Your task to perform on an android device: toggle location history Image 0: 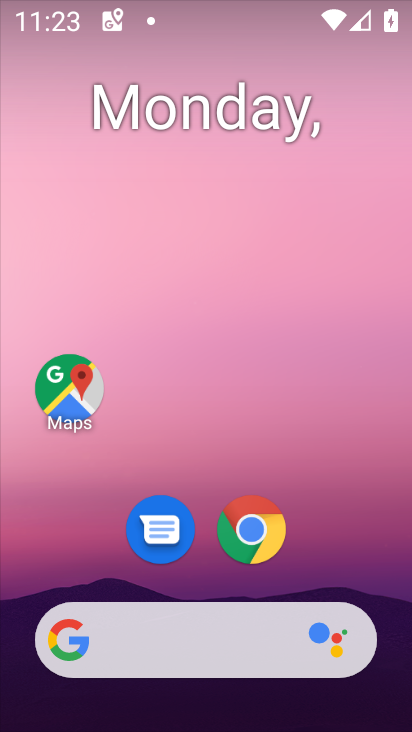
Step 0: press home button
Your task to perform on an android device: toggle location history Image 1: 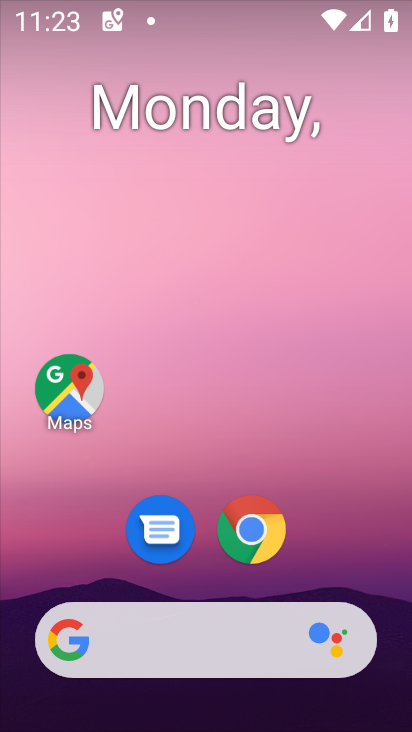
Step 1: drag from (241, 678) to (206, 6)
Your task to perform on an android device: toggle location history Image 2: 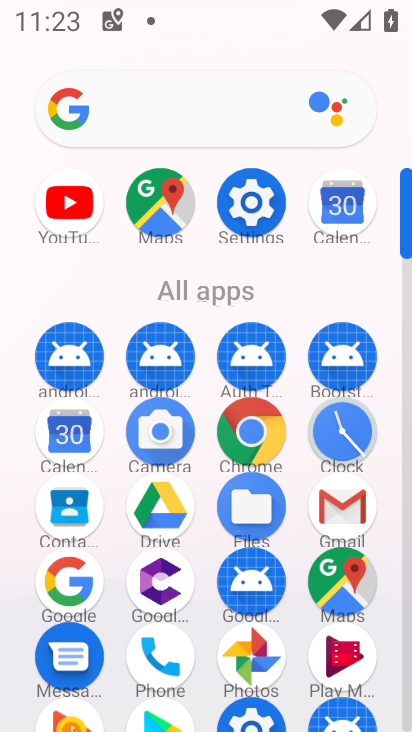
Step 2: click (244, 214)
Your task to perform on an android device: toggle location history Image 3: 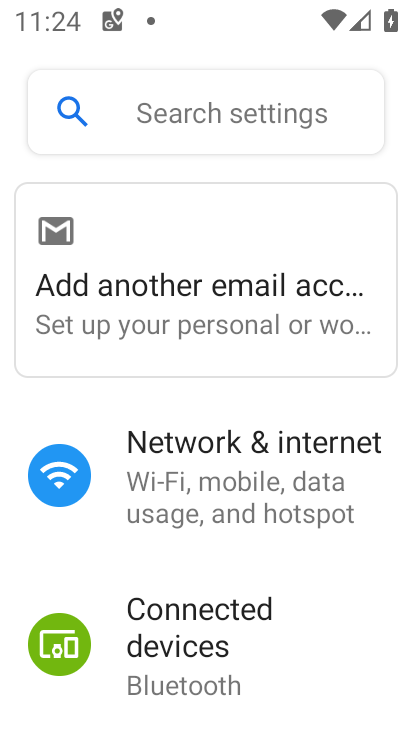
Step 3: click (212, 129)
Your task to perform on an android device: toggle location history Image 4: 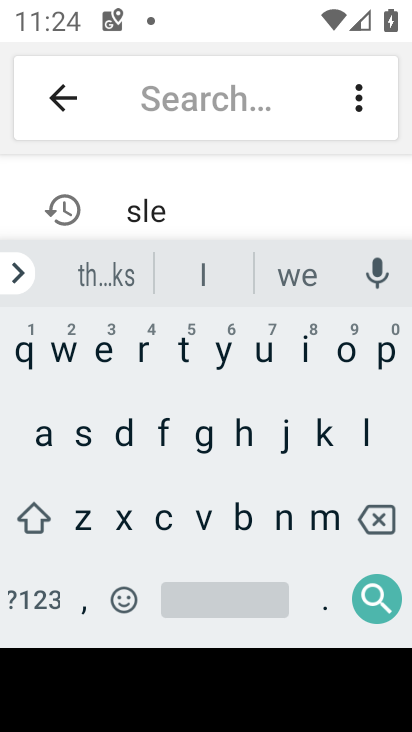
Step 4: click (373, 426)
Your task to perform on an android device: toggle location history Image 5: 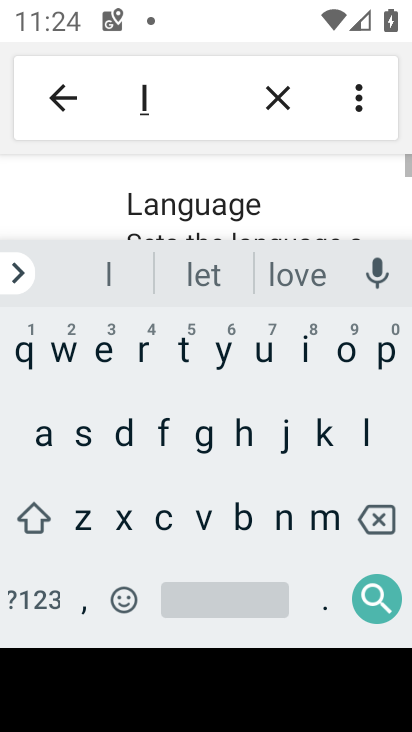
Step 5: click (346, 351)
Your task to perform on an android device: toggle location history Image 6: 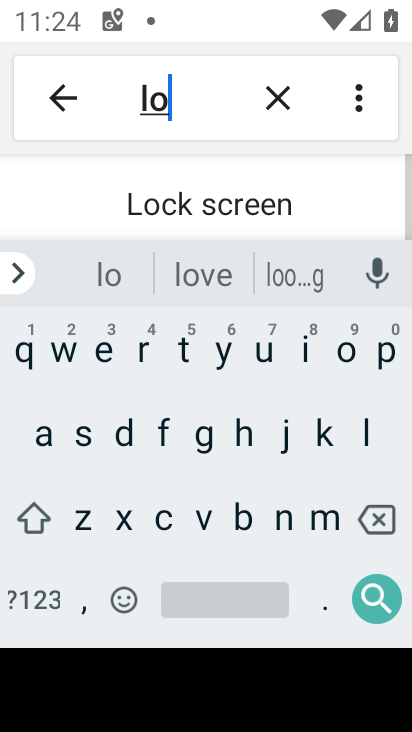
Step 6: press back button
Your task to perform on an android device: toggle location history Image 7: 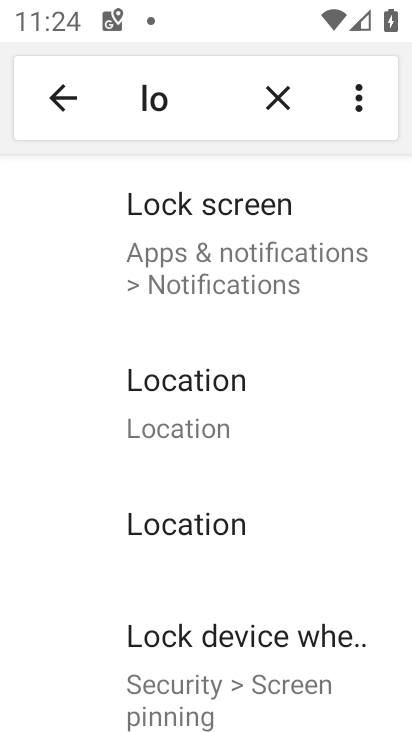
Step 7: click (230, 396)
Your task to perform on an android device: toggle location history Image 8: 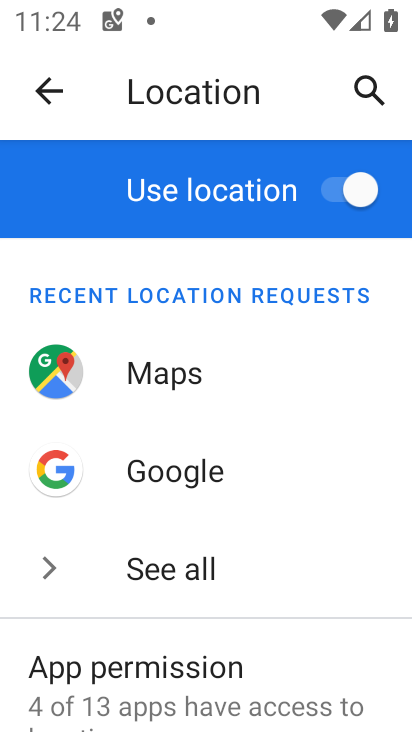
Step 8: drag from (143, 629) to (182, 320)
Your task to perform on an android device: toggle location history Image 9: 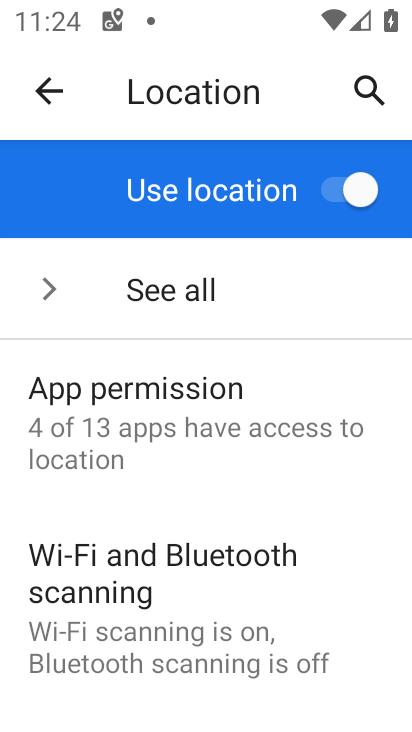
Step 9: drag from (162, 513) to (247, 80)
Your task to perform on an android device: toggle location history Image 10: 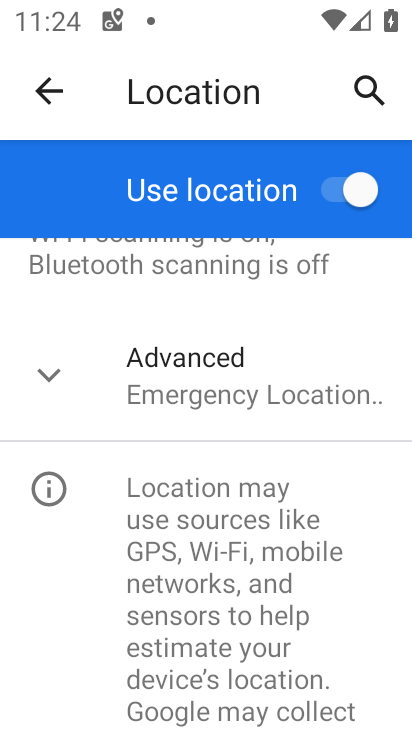
Step 10: click (110, 355)
Your task to perform on an android device: toggle location history Image 11: 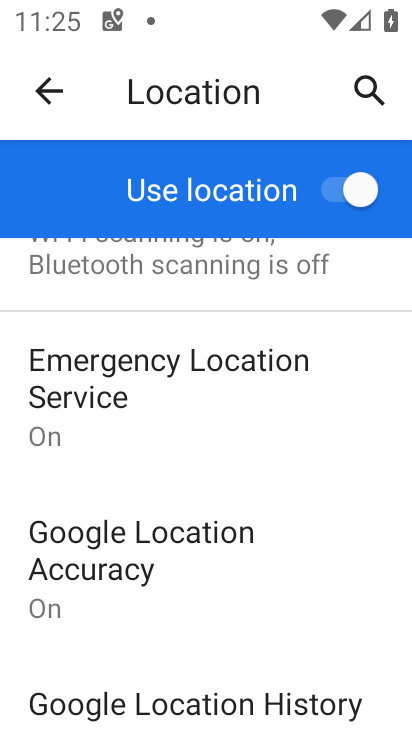
Step 11: drag from (185, 639) to (198, 393)
Your task to perform on an android device: toggle location history Image 12: 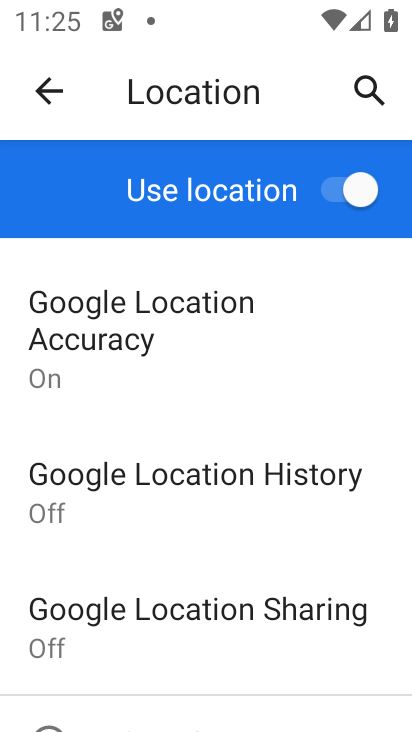
Step 12: click (192, 485)
Your task to perform on an android device: toggle location history Image 13: 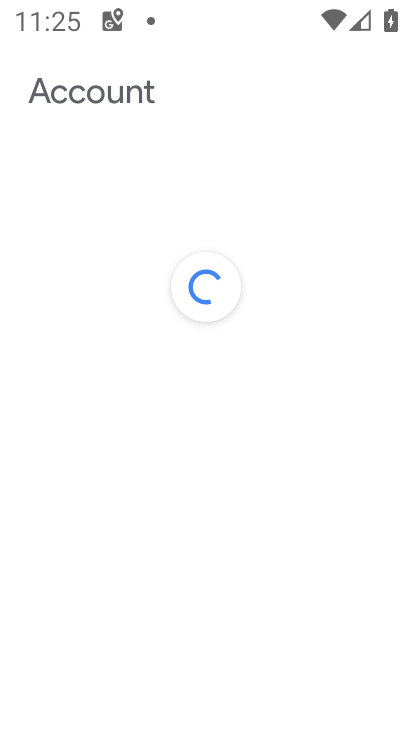
Step 13: task complete